Your task to perform on an android device: turn off picture-in-picture Image 0: 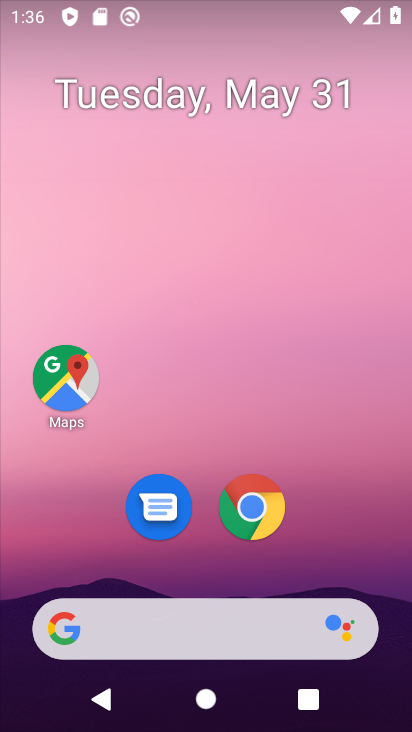
Step 0: click (249, 509)
Your task to perform on an android device: turn off picture-in-picture Image 1: 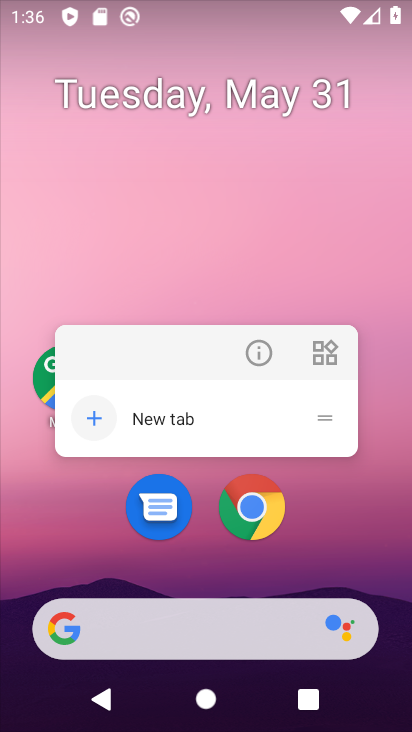
Step 1: click (251, 360)
Your task to perform on an android device: turn off picture-in-picture Image 2: 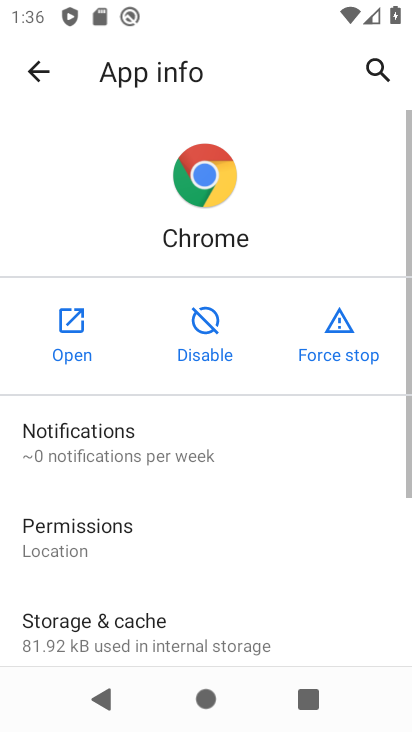
Step 2: drag from (120, 560) to (183, 146)
Your task to perform on an android device: turn off picture-in-picture Image 3: 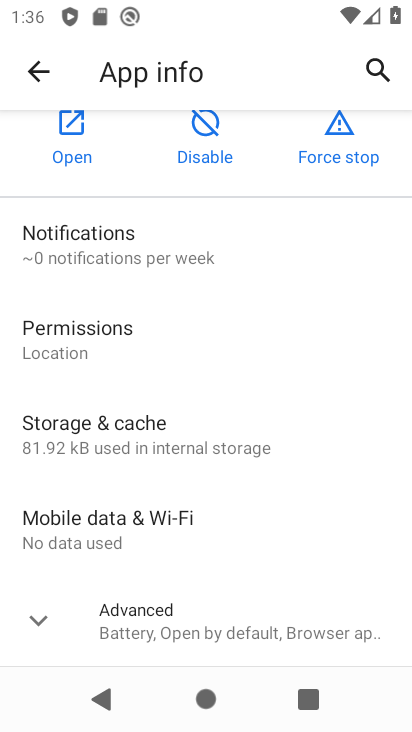
Step 3: click (212, 616)
Your task to perform on an android device: turn off picture-in-picture Image 4: 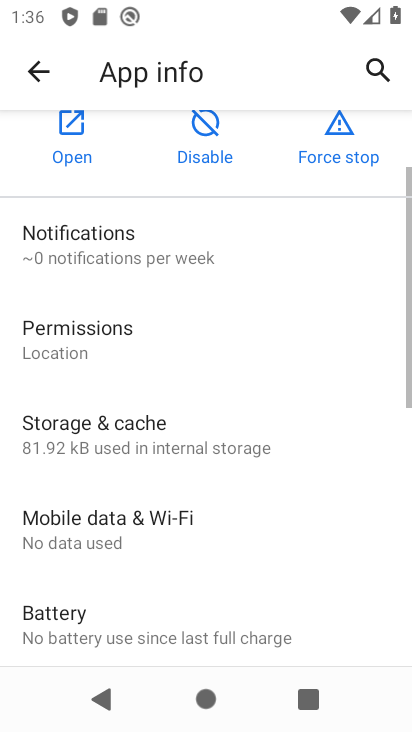
Step 4: drag from (212, 616) to (259, 271)
Your task to perform on an android device: turn off picture-in-picture Image 5: 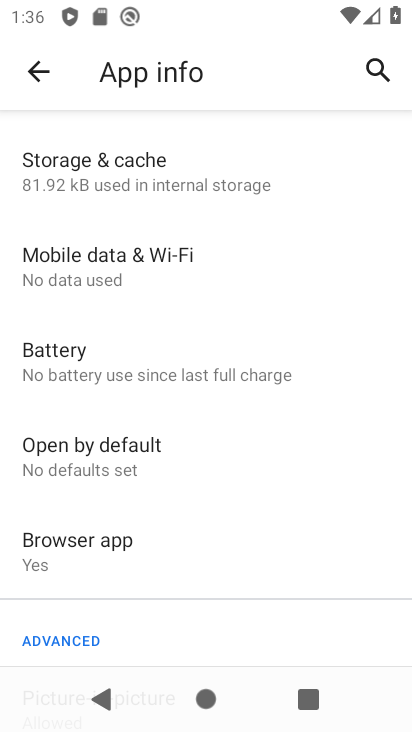
Step 5: drag from (188, 580) to (214, 266)
Your task to perform on an android device: turn off picture-in-picture Image 6: 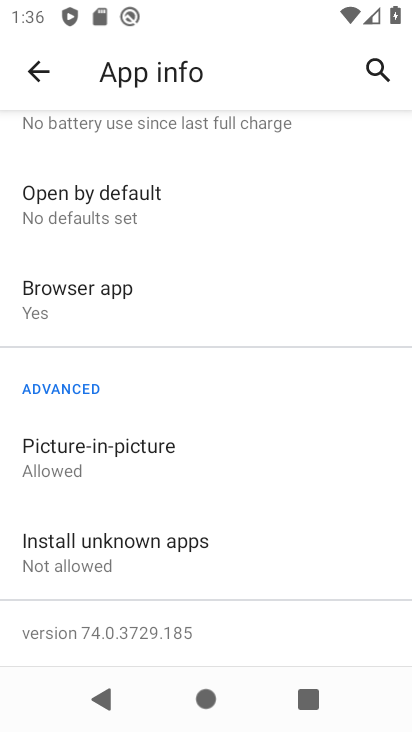
Step 6: click (116, 477)
Your task to perform on an android device: turn off picture-in-picture Image 7: 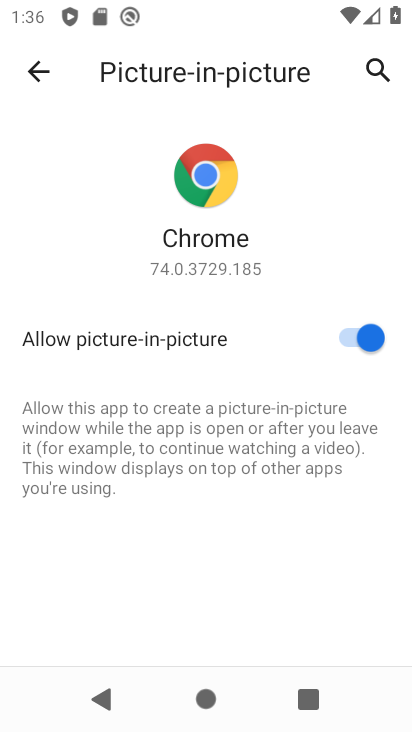
Step 7: click (359, 339)
Your task to perform on an android device: turn off picture-in-picture Image 8: 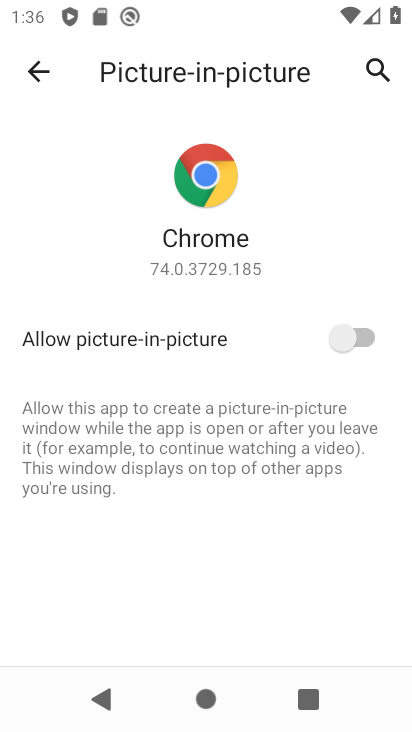
Step 8: task complete